Your task to perform on an android device: open app "Messenger Lite" Image 0: 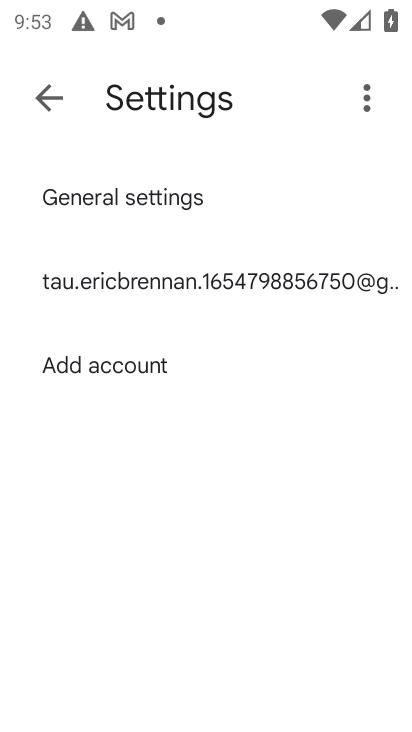
Step 0: press home button
Your task to perform on an android device: open app "Messenger Lite" Image 1: 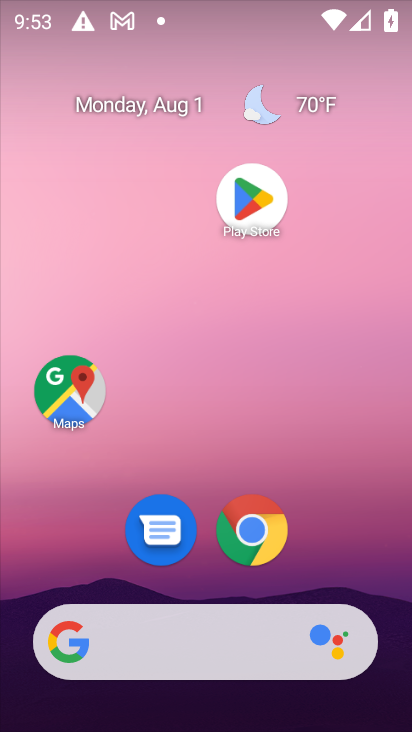
Step 1: click (244, 188)
Your task to perform on an android device: open app "Messenger Lite" Image 2: 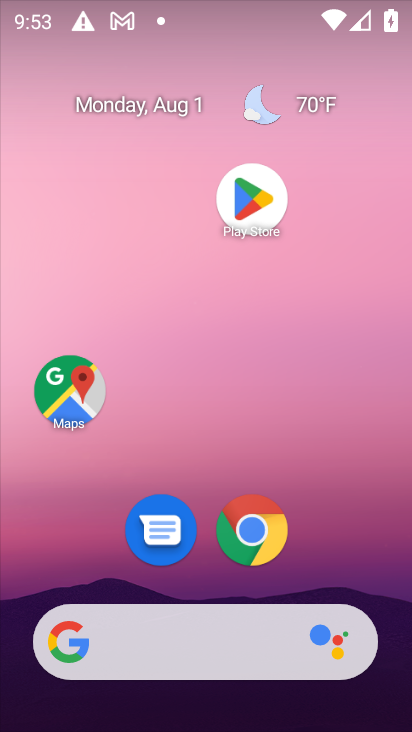
Step 2: click (244, 188)
Your task to perform on an android device: open app "Messenger Lite" Image 3: 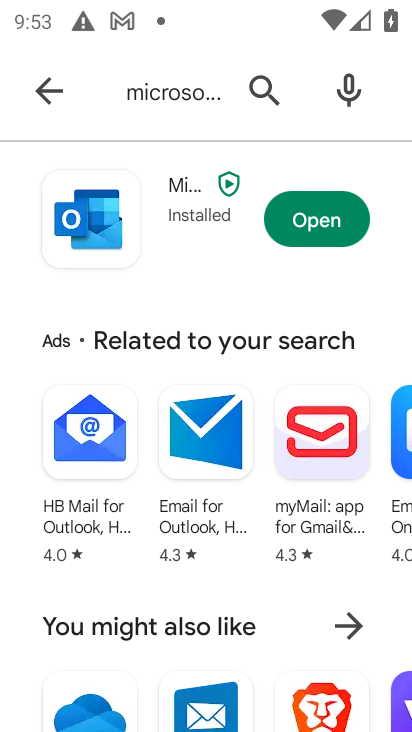
Step 3: click (261, 89)
Your task to perform on an android device: open app "Messenger Lite" Image 4: 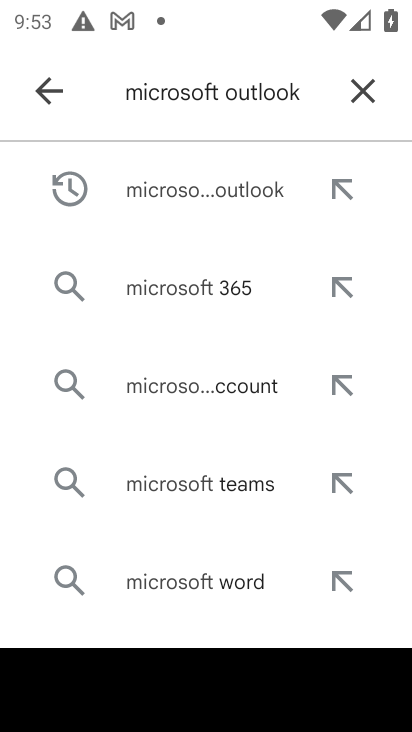
Step 4: click (362, 85)
Your task to perform on an android device: open app "Messenger Lite" Image 5: 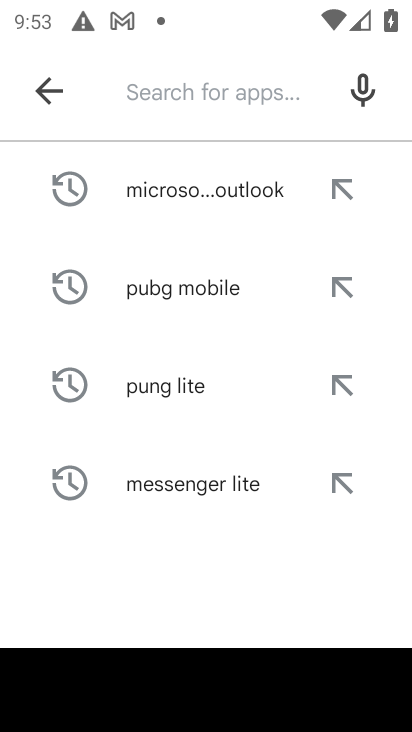
Step 5: click (204, 483)
Your task to perform on an android device: open app "Messenger Lite" Image 6: 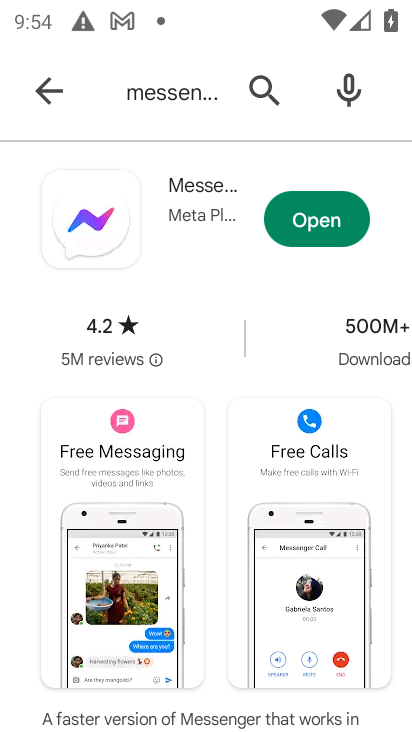
Step 6: click (304, 226)
Your task to perform on an android device: open app "Messenger Lite" Image 7: 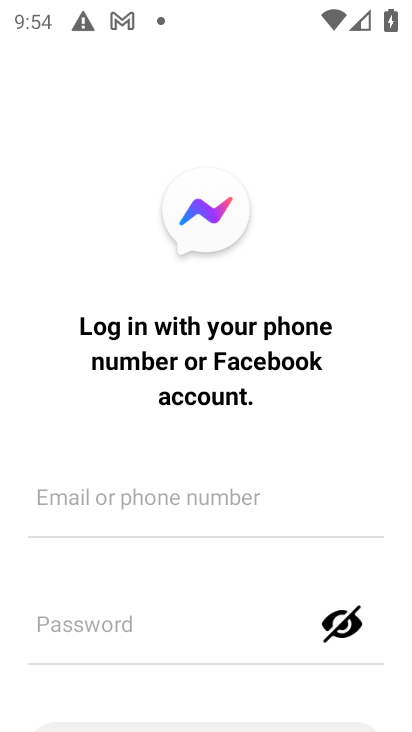
Step 7: task complete